Your task to perform on an android device: toggle wifi Image 0: 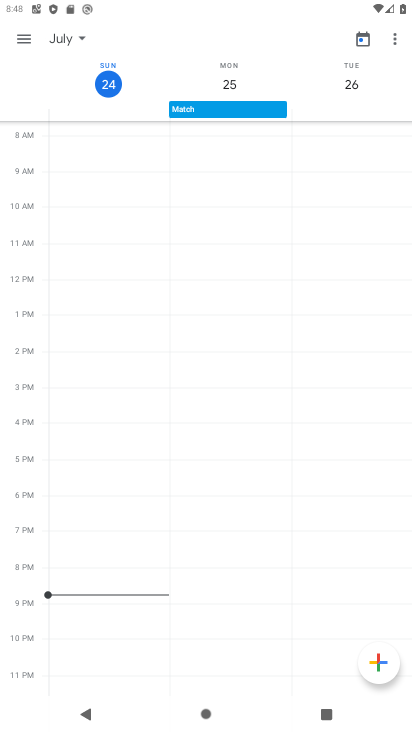
Step 0: press home button
Your task to perform on an android device: toggle wifi Image 1: 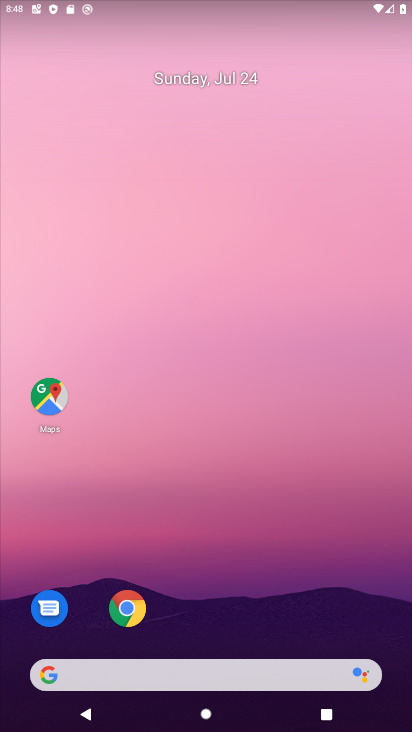
Step 1: drag from (237, 653) to (226, 8)
Your task to perform on an android device: toggle wifi Image 2: 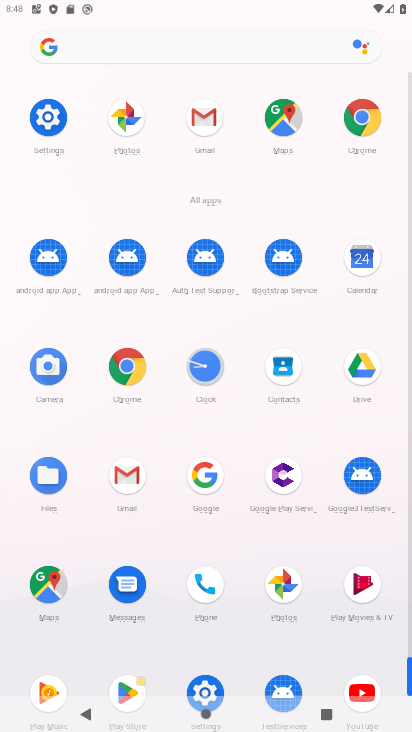
Step 2: drag from (250, 584) to (253, 467)
Your task to perform on an android device: toggle wifi Image 3: 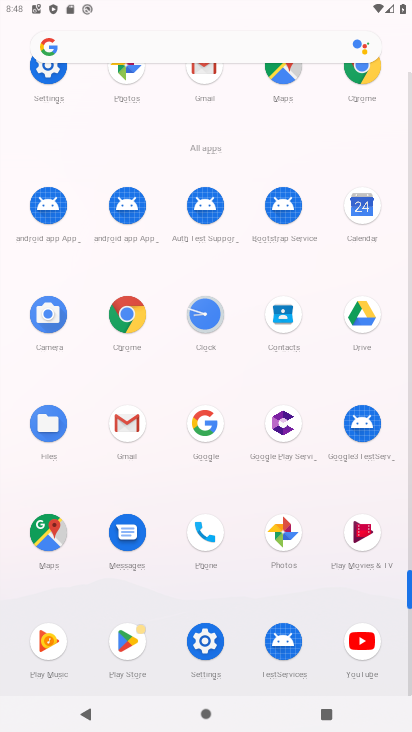
Step 3: click (203, 655)
Your task to perform on an android device: toggle wifi Image 4: 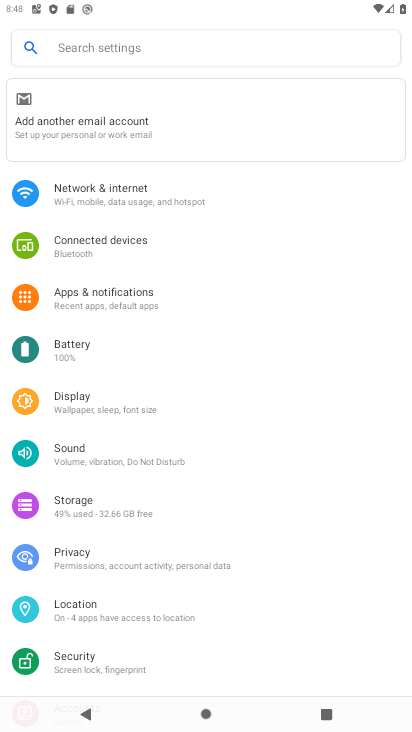
Step 4: click (137, 206)
Your task to perform on an android device: toggle wifi Image 5: 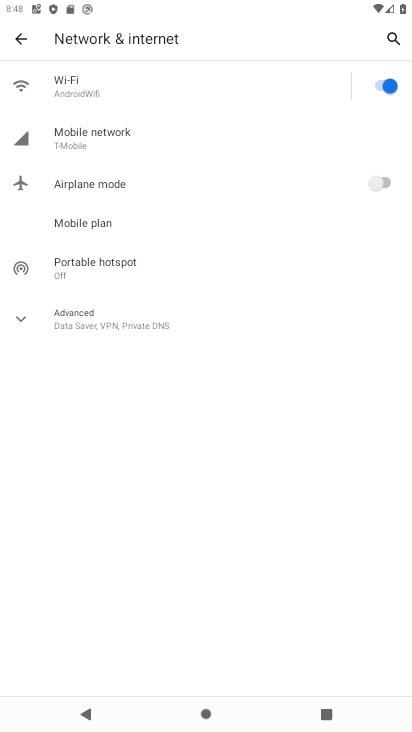
Step 5: click (369, 86)
Your task to perform on an android device: toggle wifi Image 6: 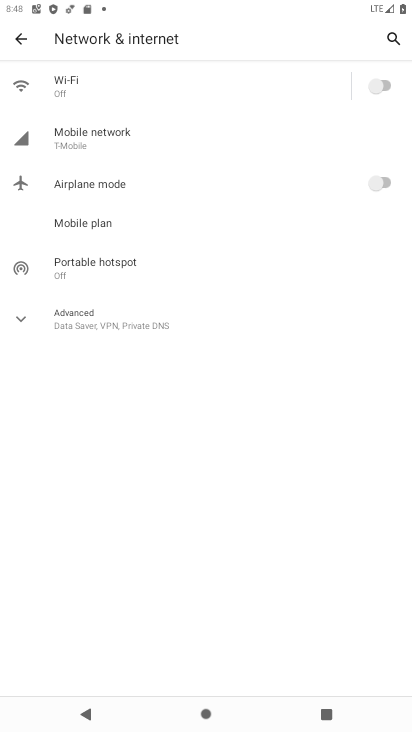
Step 6: task complete